Your task to perform on an android device: change notification settings in the gmail app Image 0: 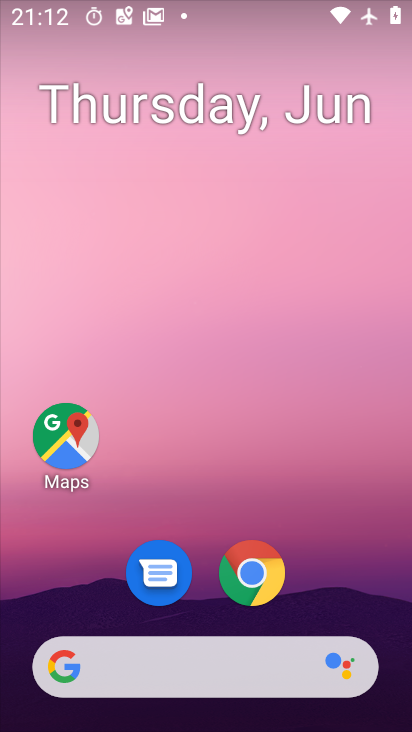
Step 0: drag from (358, 598) to (356, 271)
Your task to perform on an android device: change notification settings in the gmail app Image 1: 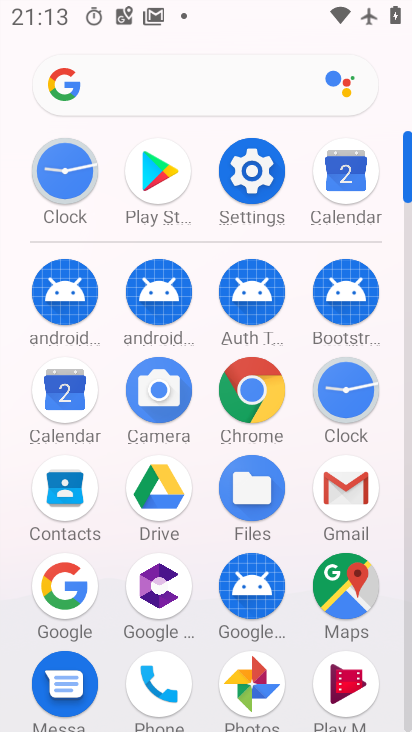
Step 1: click (352, 482)
Your task to perform on an android device: change notification settings in the gmail app Image 2: 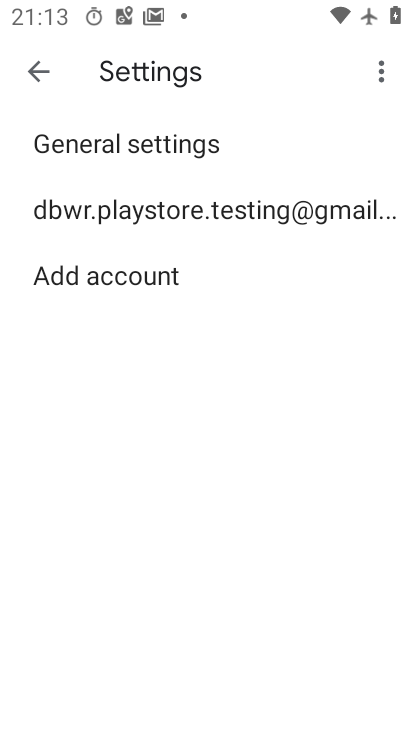
Step 2: click (76, 203)
Your task to perform on an android device: change notification settings in the gmail app Image 3: 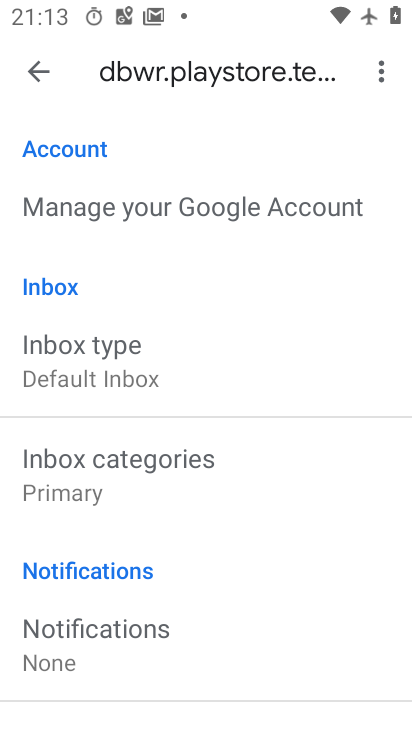
Step 3: drag from (241, 562) to (268, 322)
Your task to perform on an android device: change notification settings in the gmail app Image 4: 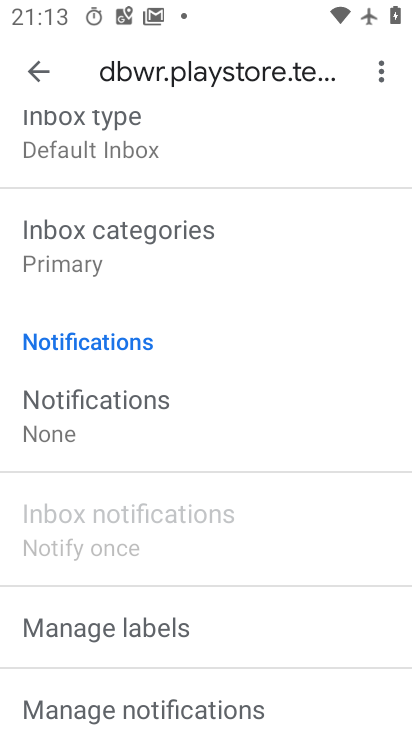
Step 4: click (200, 432)
Your task to perform on an android device: change notification settings in the gmail app Image 5: 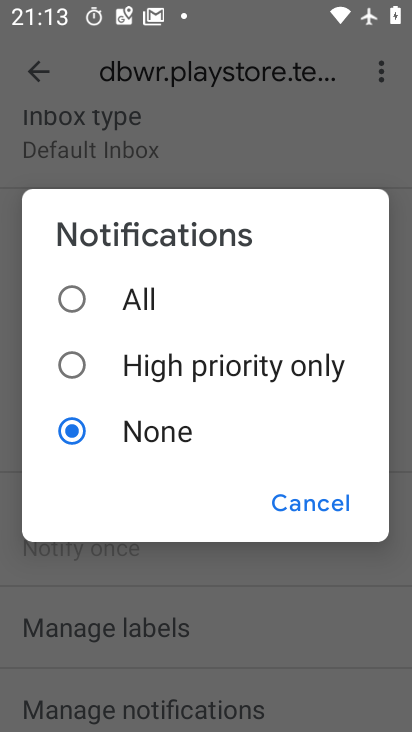
Step 5: click (117, 282)
Your task to perform on an android device: change notification settings in the gmail app Image 6: 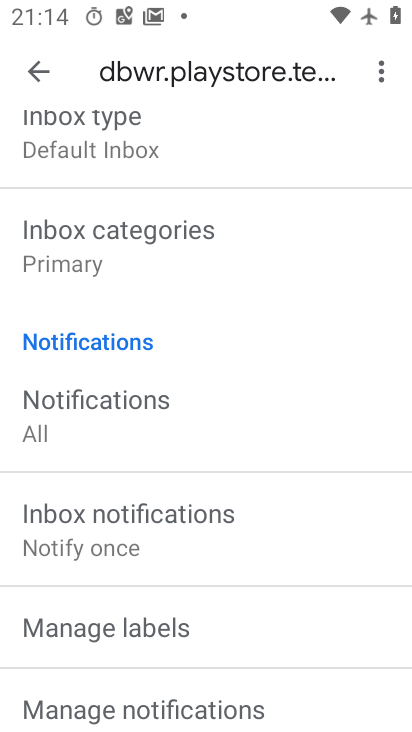
Step 6: task complete